Your task to perform on an android device: turn smart compose on in the gmail app Image 0: 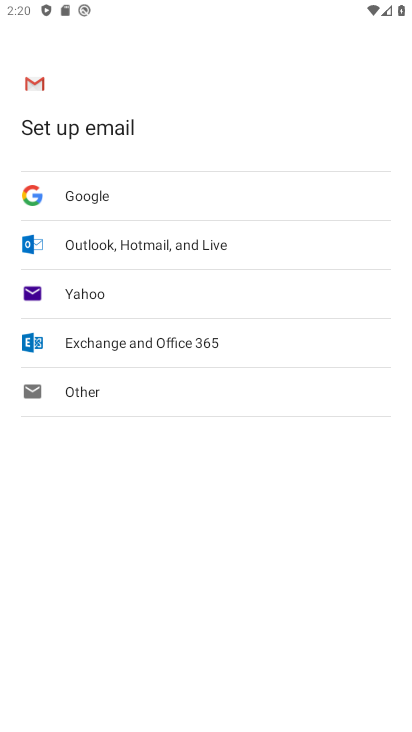
Step 0: press home button
Your task to perform on an android device: turn smart compose on in the gmail app Image 1: 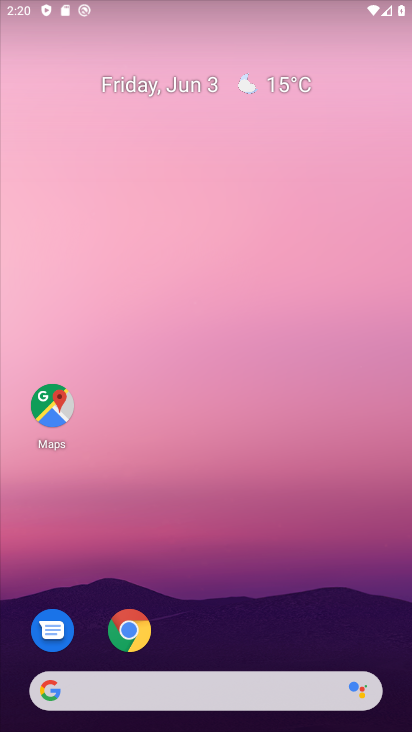
Step 1: drag from (355, 617) to (367, 44)
Your task to perform on an android device: turn smart compose on in the gmail app Image 2: 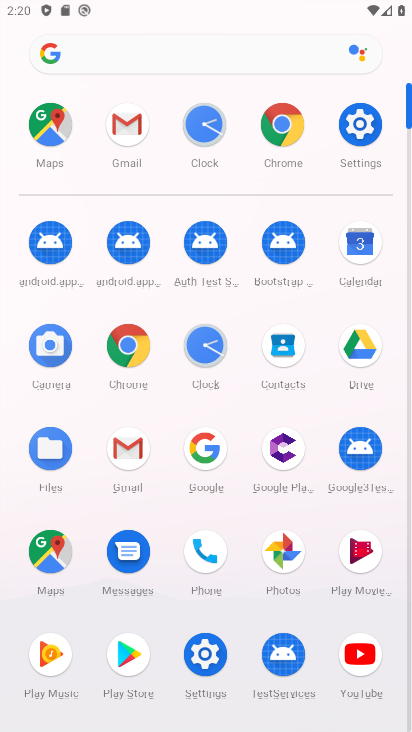
Step 2: click (128, 143)
Your task to perform on an android device: turn smart compose on in the gmail app Image 3: 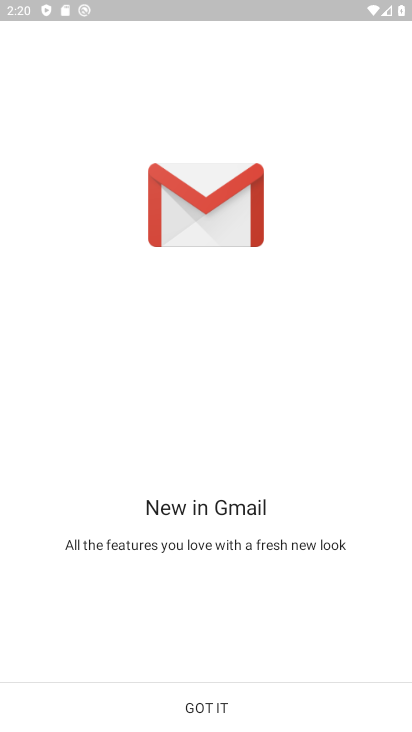
Step 3: click (234, 691)
Your task to perform on an android device: turn smart compose on in the gmail app Image 4: 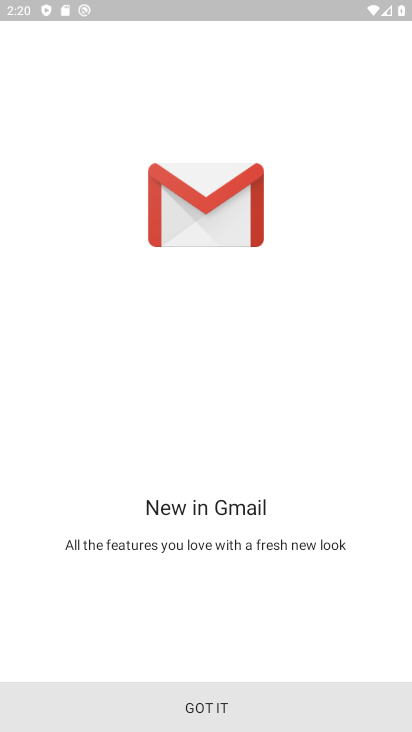
Step 4: click (234, 691)
Your task to perform on an android device: turn smart compose on in the gmail app Image 5: 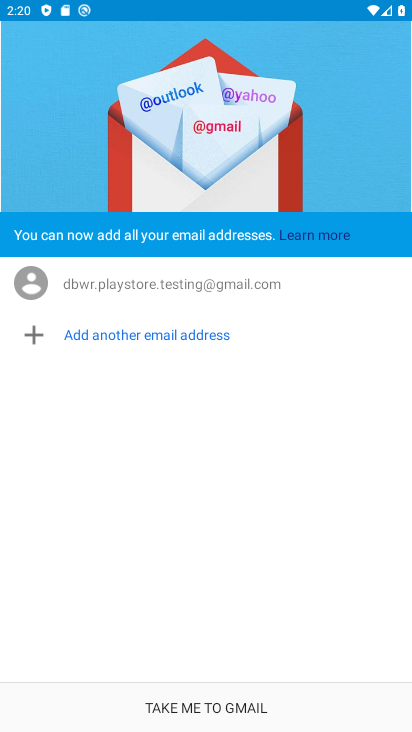
Step 5: click (234, 691)
Your task to perform on an android device: turn smart compose on in the gmail app Image 6: 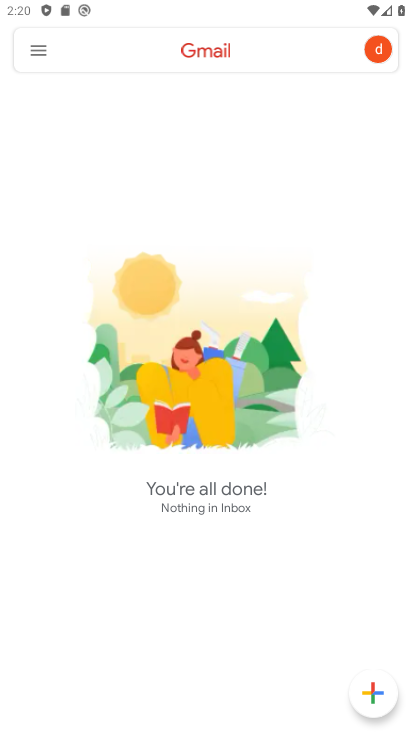
Step 6: click (39, 62)
Your task to perform on an android device: turn smart compose on in the gmail app Image 7: 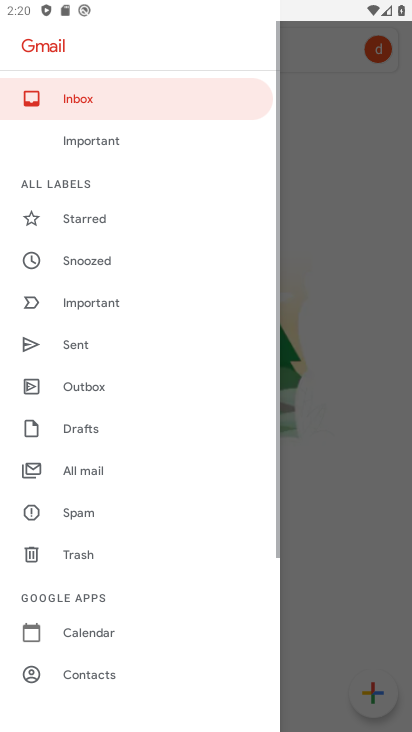
Step 7: drag from (128, 678) to (130, 603)
Your task to perform on an android device: turn smart compose on in the gmail app Image 8: 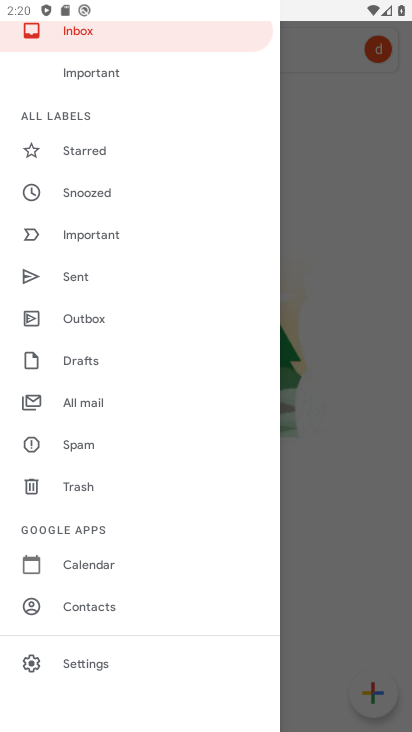
Step 8: click (106, 662)
Your task to perform on an android device: turn smart compose on in the gmail app Image 9: 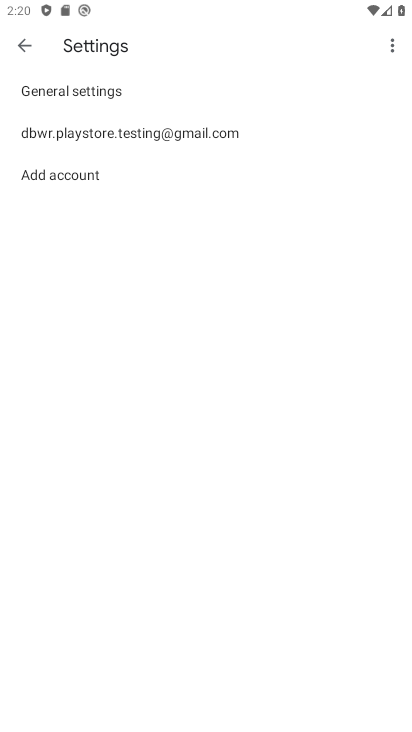
Step 9: click (145, 146)
Your task to perform on an android device: turn smart compose on in the gmail app Image 10: 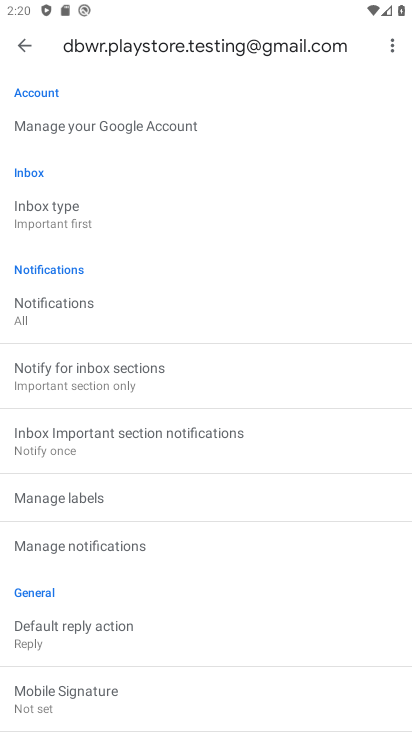
Step 10: task complete